Your task to perform on an android device: turn off notifications settings in the gmail app Image 0: 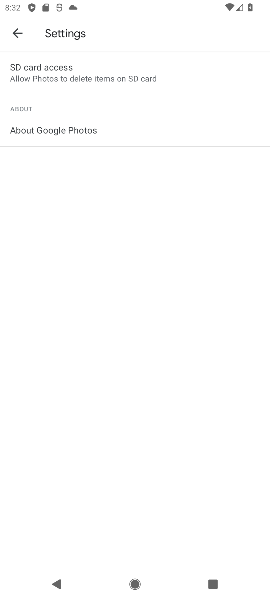
Step 0: drag from (151, 489) to (196, 239)
Your task to perform on an android device: turn off notifications settings in the gmail app Image 1: 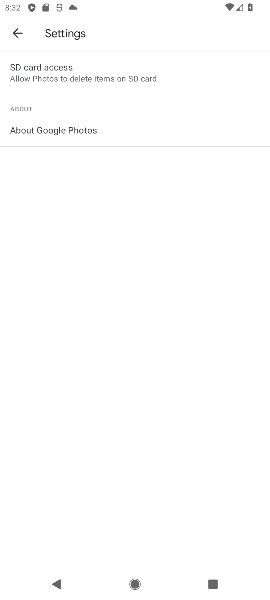
Step 1: press home button
Your task to perform on an android device: turn off notifications settings in the gmail app Image 2: 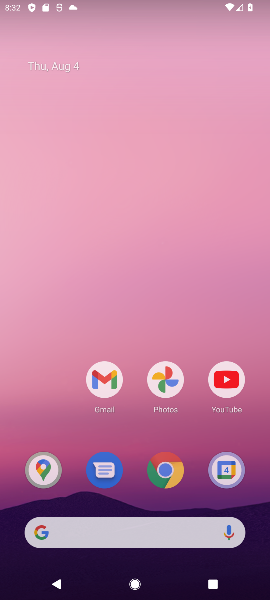
Step 2: drag from (112, 506) to (140, 16)
Your task to perform on an android device: turn off notifications settings in the gmail app Image 3: 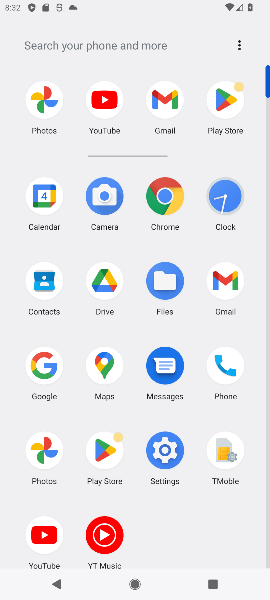
Step 3: click (231, 275)
Your task to perform on an android device: turn off notifications settings in the gmail app Image 4: 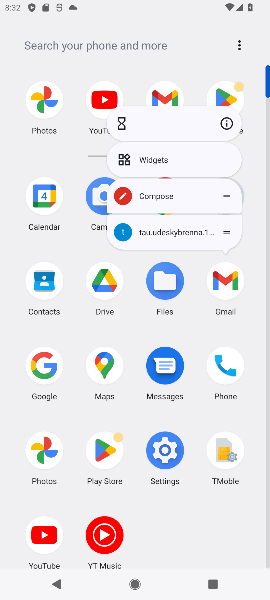
Step 4: click (220, 115)
Your task to perform on an android device: turn off notifications settings in the gmail app Image 5: 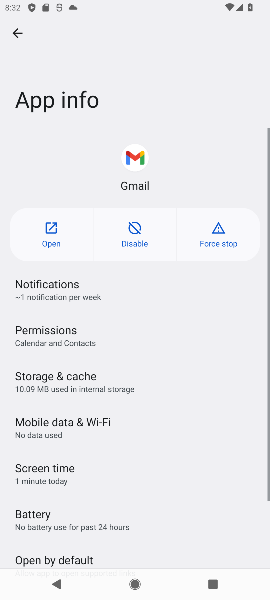
Step 5: click (54, 233)
Your task to perform on an android device: turn off notifications settings in the gmail app Image 6: 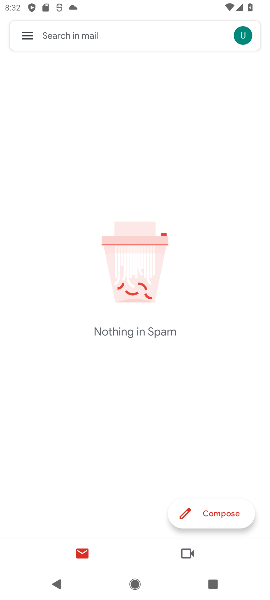
Step 6: click (26, 32)
Your task to perform on an android device: turn off notifications settings in the gmail app Image 7: 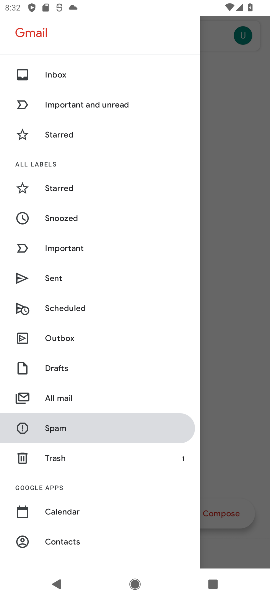
Step 7: drag from (69, 490) to (94, 155)
Your task to perform on an android device: turn off notifications settings in the gmail app Image 8: 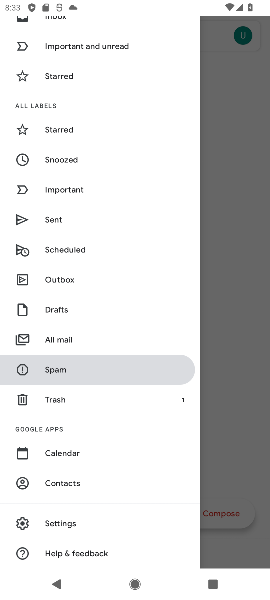
Step 8: click (74, 529)
Your task to perform on an android device: turn off notifications settings in the gmail app Image 9: 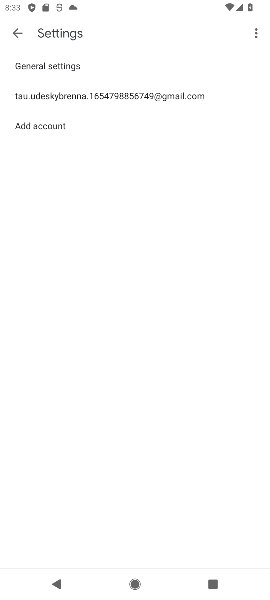
Step 9: click (99, 94)
Your task to perform on an android device: turn off notifications settings in the gmail app Image 10: 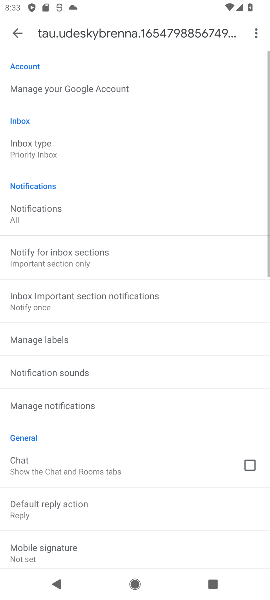
Step 10: click (68, 405)
Your task to perform on an android device: turn off notifications settings in the gmail app Image 11: 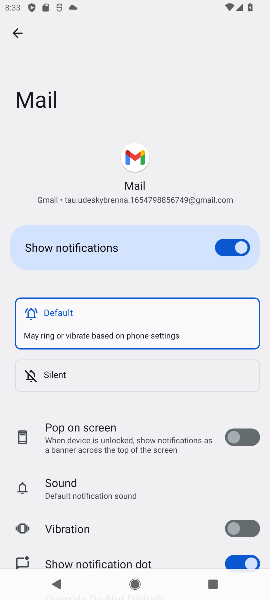
Step 11: drag from (141, 490) to (190, 244)
Your task to perform on an android device: turn off notifications settings in the gmail app Image 12: 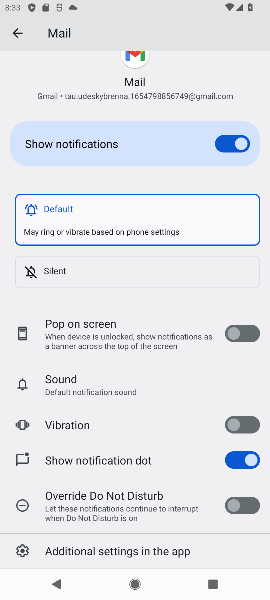
Step 12: drag from (115, 465) to (143, 179)
Your task to perform on an android device: turn off notifications settings in the gmail app Image 13: 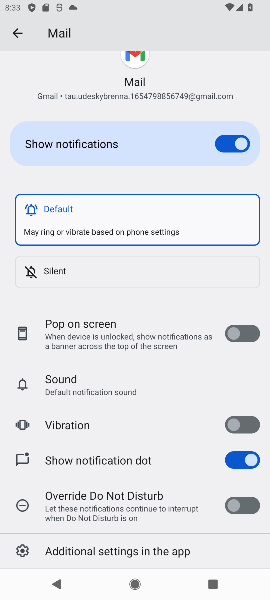
Step 13: drag from (93, 235) to (248, 588)
Your task to perform on an android device: turn off notifications settings in the gmail app Image 14: 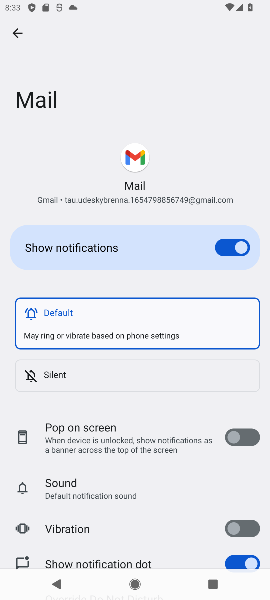
Step 14: click (225, 245)
Your task to perform on an android device: turn off notifications settings in the gmail app Image 15: 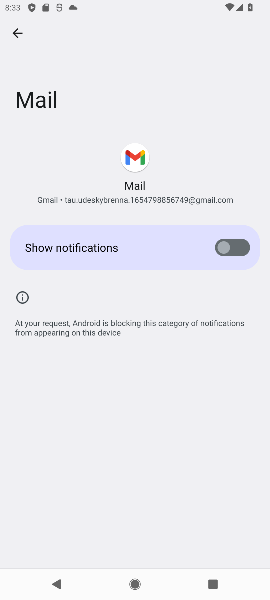
Step 15: task complete